Your task to perform on an android device: Open settings Image 0: 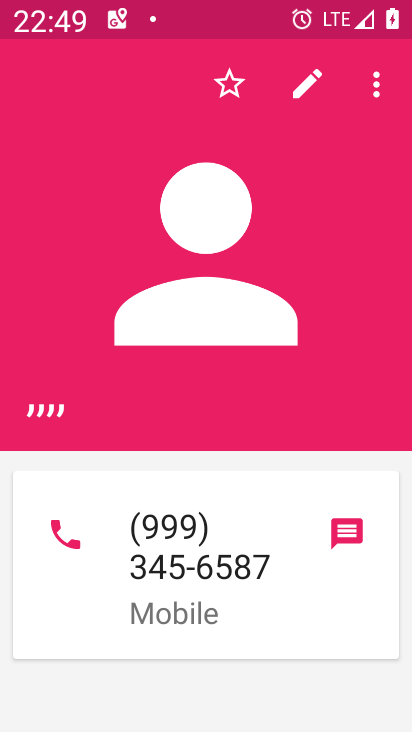
Step 0: press home button
Your task to perform on an android device: Open settings Image 1: 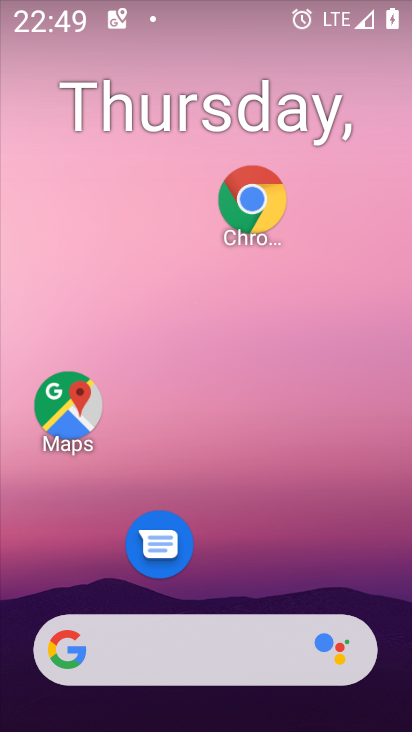
Step 1: drag from (212, 610) to (404, 275)
Your task to perform on an android device: Open settings Image 2: 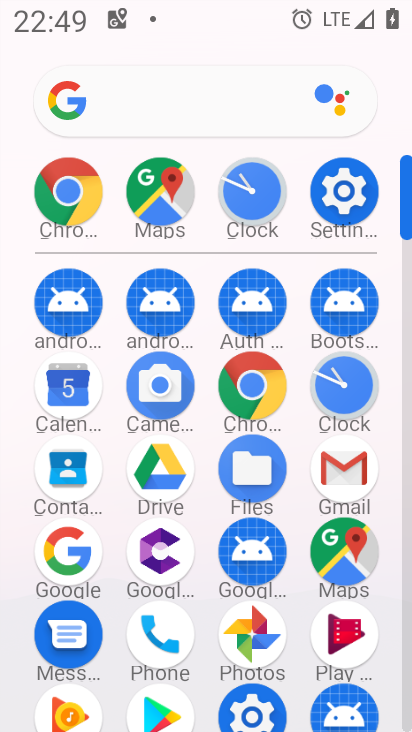
Step 2: click (343, 201)
Your task to perform on an android device: Open settings Image 3: 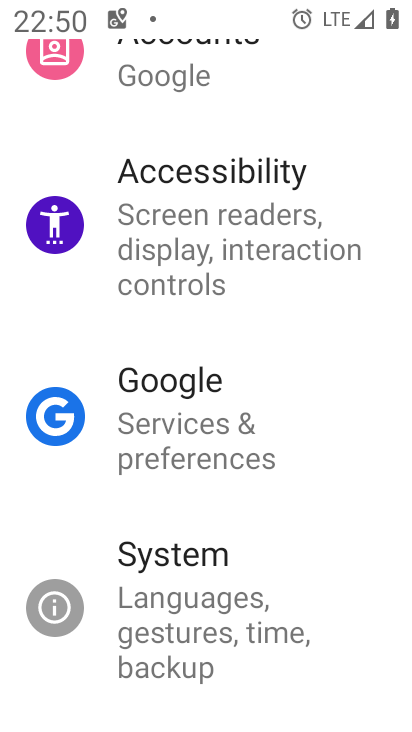
Step 3: task complete